Your task to perform on an android device: check the backup settings in the google photos Image 0: 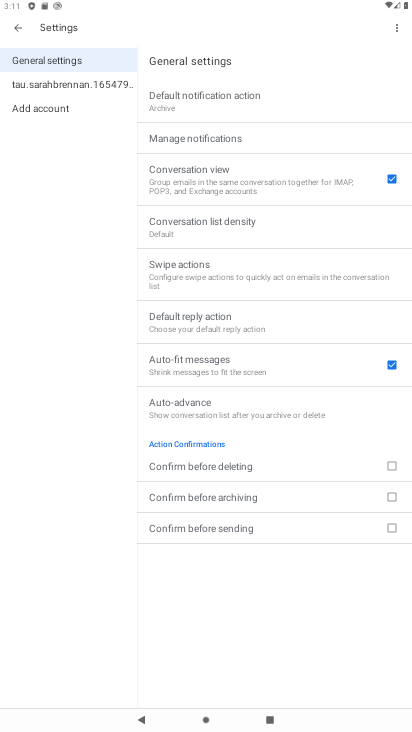
Step 0: press home button
Your task to perform on an android device: check the backup settings in the google photos Image 1: 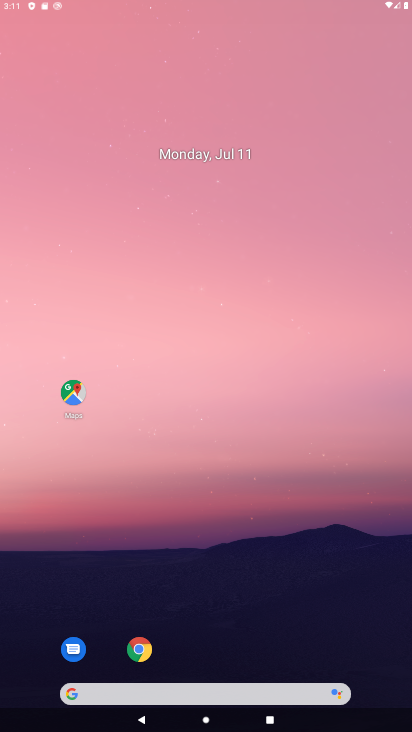
Step 1: drag from (303, 657) to (232, 89)
Your task to perform on an android device: check the backup settings in the google photos Image 2: 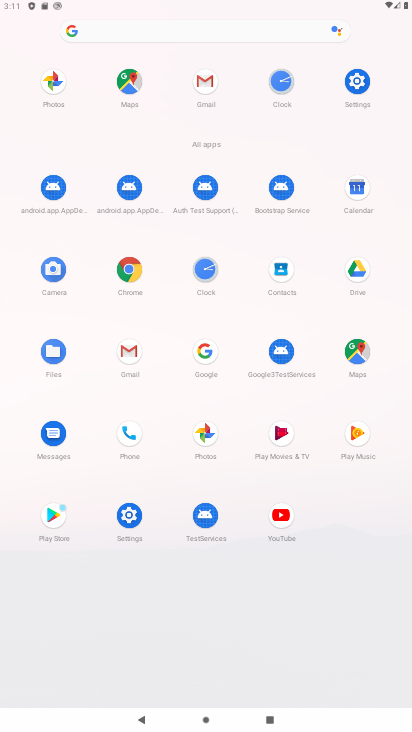
Step 2: click (211, 428)
Your task to perform on an android device: check the backup settings in the google photos Image 3: 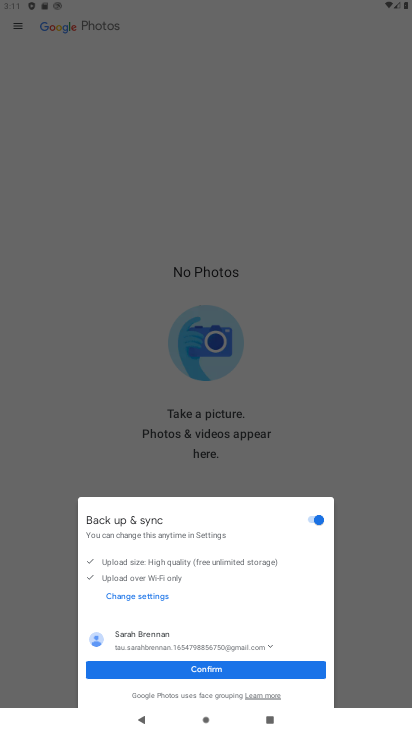
Step 3: drag from (174, 672) to (225, 672)
Your task to perform on an android device: check the backup settings in the google photos Image 4: 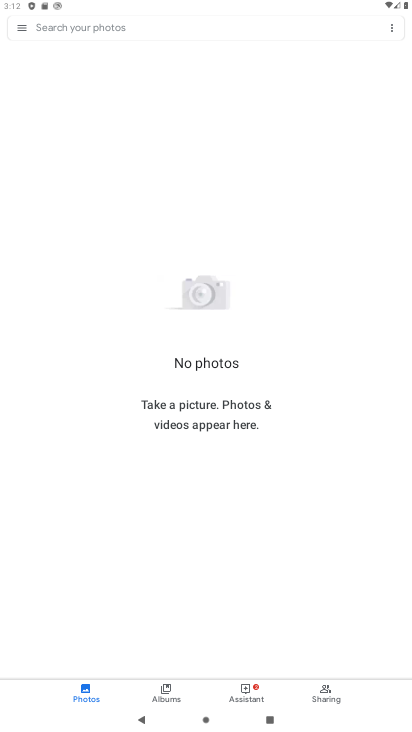
Step 4: click (17, 28)
Your task to perform on an android device: check the backup settings in the google photos Image 5: 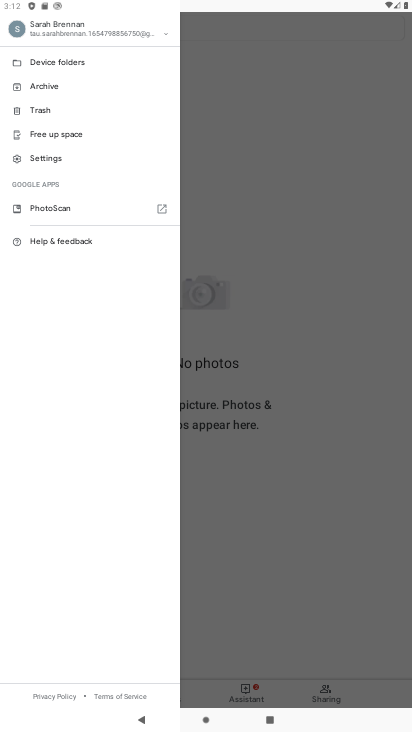
Step 5: click (54, 158)
Your task to perform on an android device: check the backup settings in the google photos Image 6: 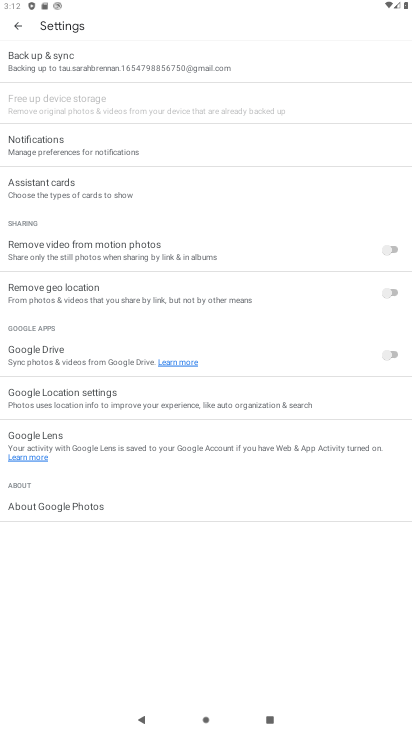
Step 6: click (56, 68)
Your task to perform on an android device: check the backup settings in the google photos Image 7: 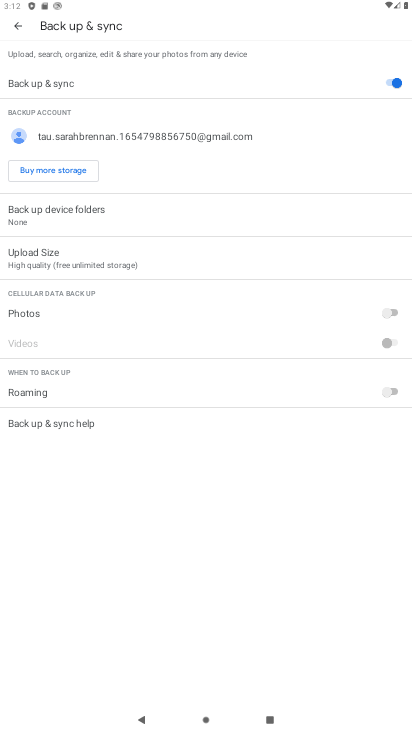
Step 7: task complete